Your task to perform on an android device: read, delete, or share a saved page in the chrome app Image 0: 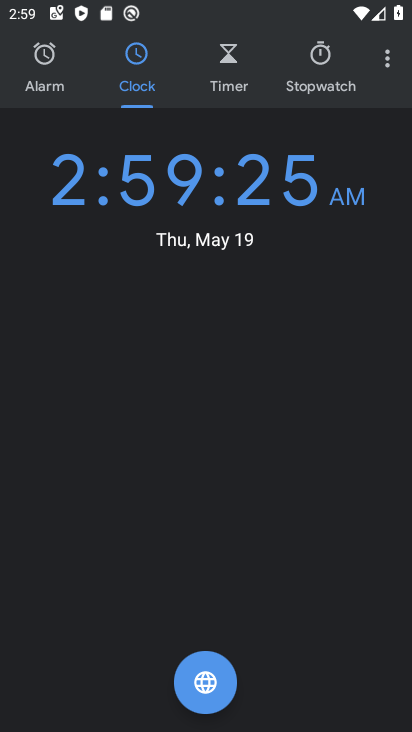
Step 0: press home button
Your task to perform on an android device: read, delete, or share a saved page in the chrome app Image 1: 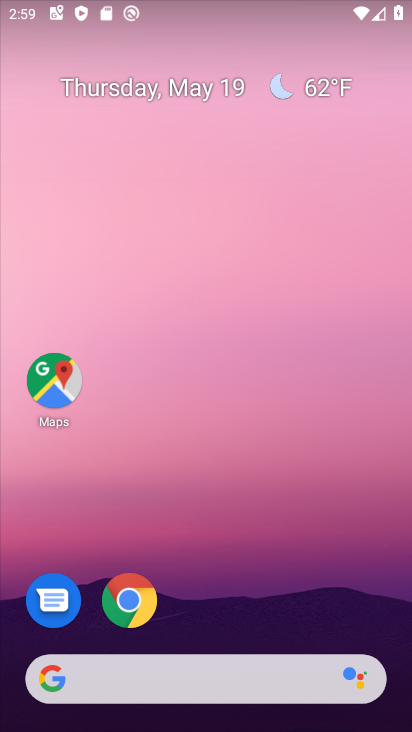
Step 1: click (119, 585)
Your task to perform on an android device: read, delete, or share a saved page in the chrome app Image 2: 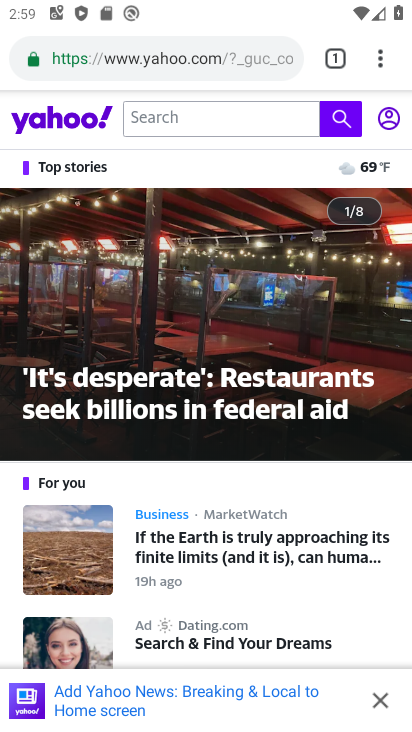
Step 2: click (328, 58)
Your task to perform on an android device: read, delete, or share a saved page in the chrome app Image 3: 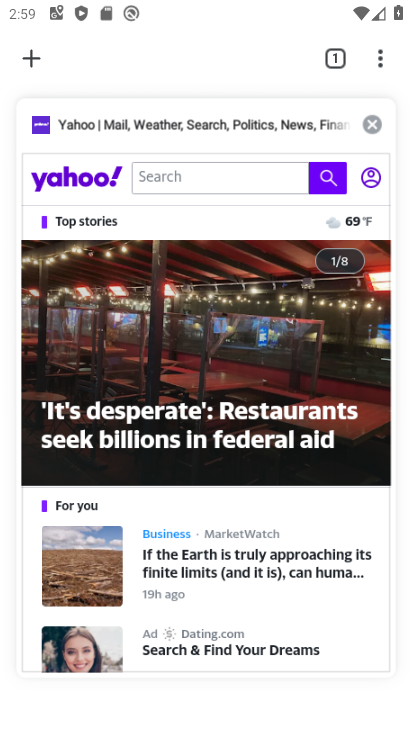
Step 3: click (378, 129)
Your task to perform on an android device: read, delete, or share a saved page in the chrome app Image 4: 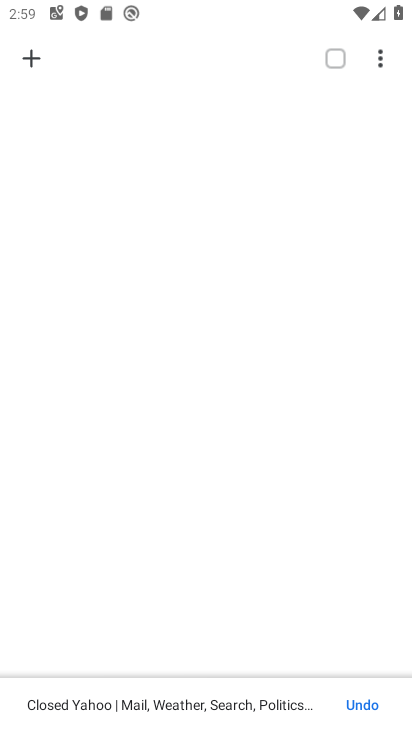
Step 4: click (26, 60)
Your task to perform on an android device: read, delete, or share a saved page in the chrome app Image 5: 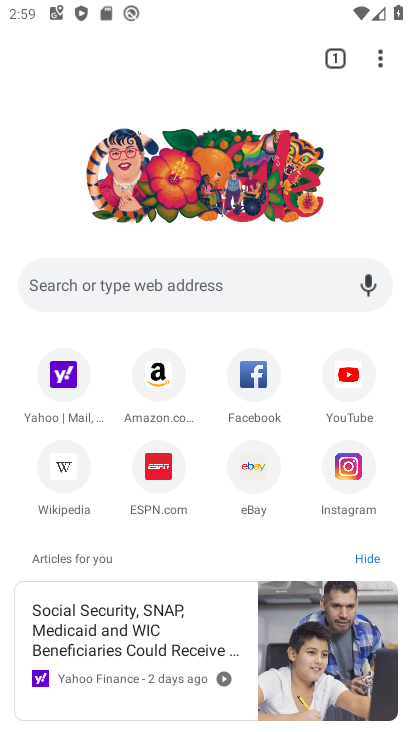
Step 5: click (257, 380)
Your task to perform on an android device: read, delete, or share a saved page in the chrome app Image 6: 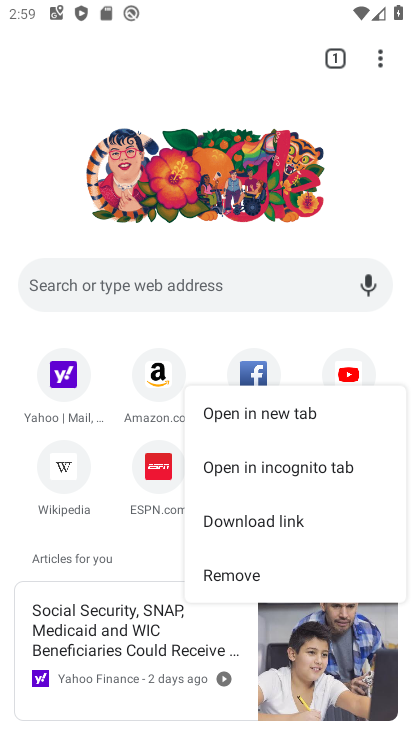
Step 6: click (228, 561)
Your task to perform on an android device: read, delete, or share a saved page in the chrome app Image 7: 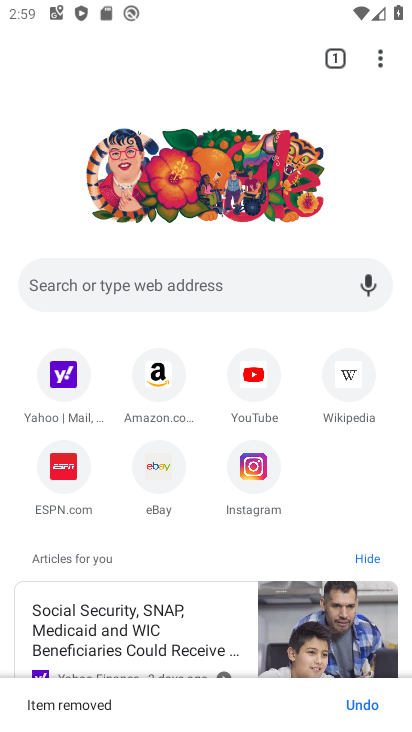
Step 7: task complete